Your task to perform on an android device: Show me popular games on the Play Store Image 0: 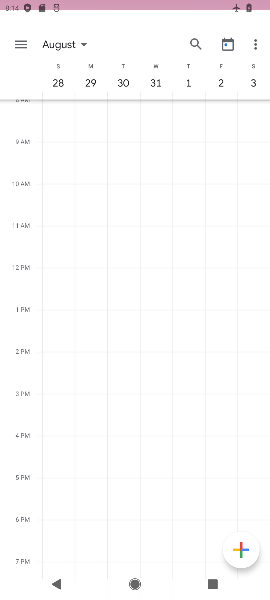
Step 0: press home button
Your task to perform on an android device: Show me popular games on the Play Store Image 1: 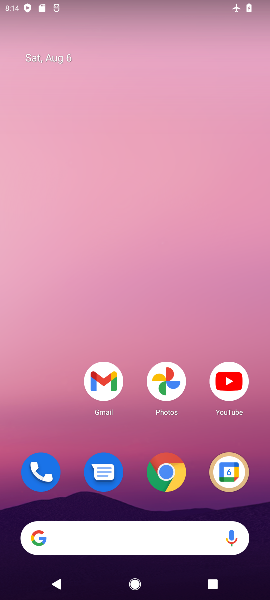
Step 1: drag from (256, 581) to (222, 98)
Your task to perform on an android device: Show me popular games on the Play Store Image 2: 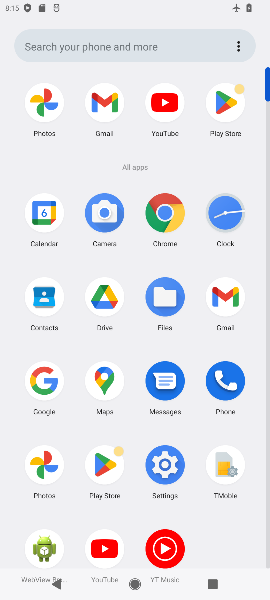
Step 2: click (112, 468)
Your task to perform on an android device: Show me popular games on the Play Store Image 3: 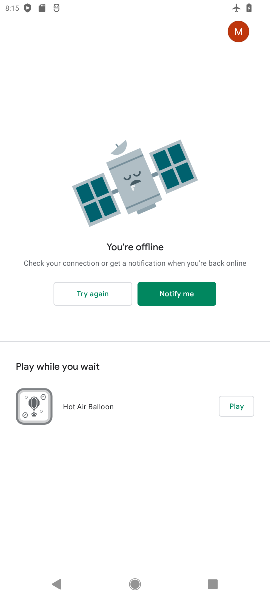
Step 3: task complete